Your task to perform on an android device: change the upload size in google photos Image 0: 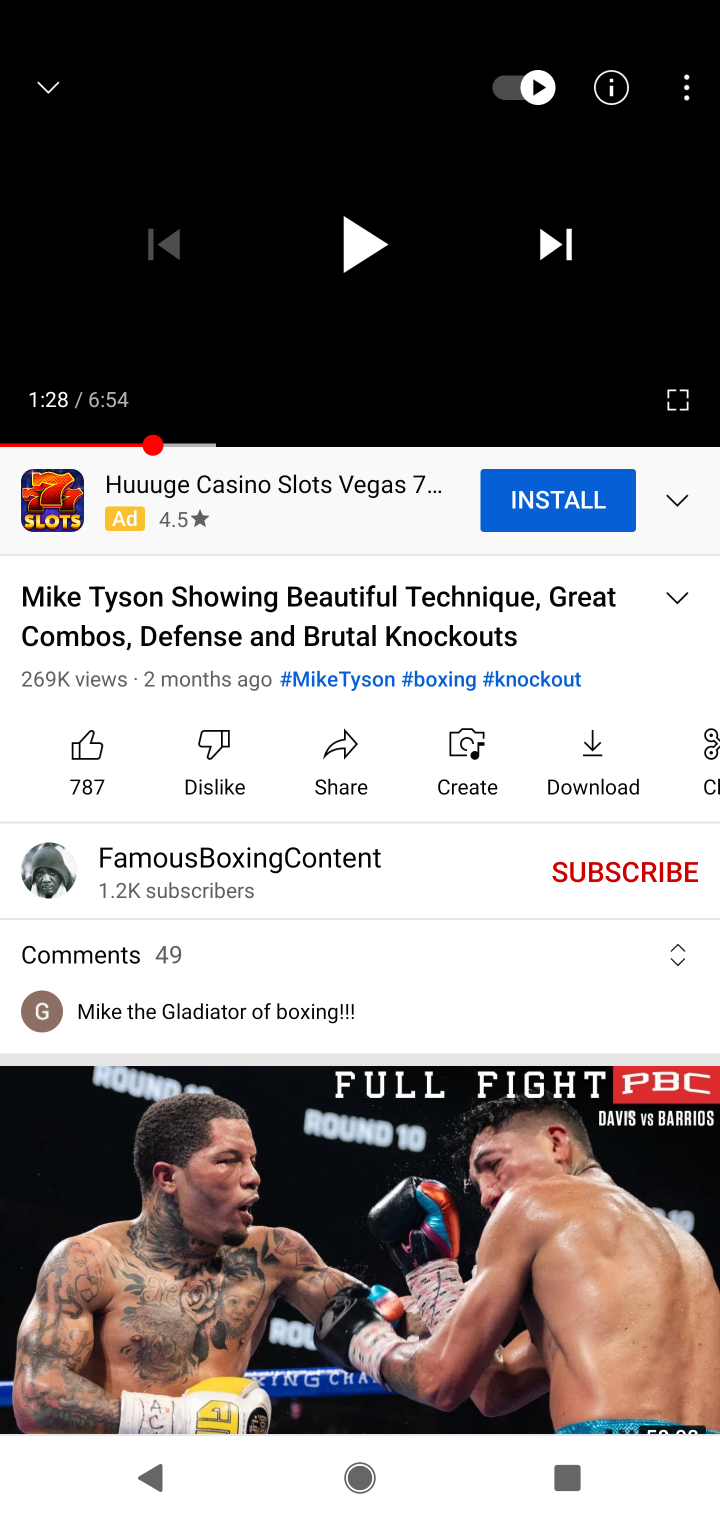
Step 0: press home button
Your task to perform on an android device: change the upload size in google photos Image 1: 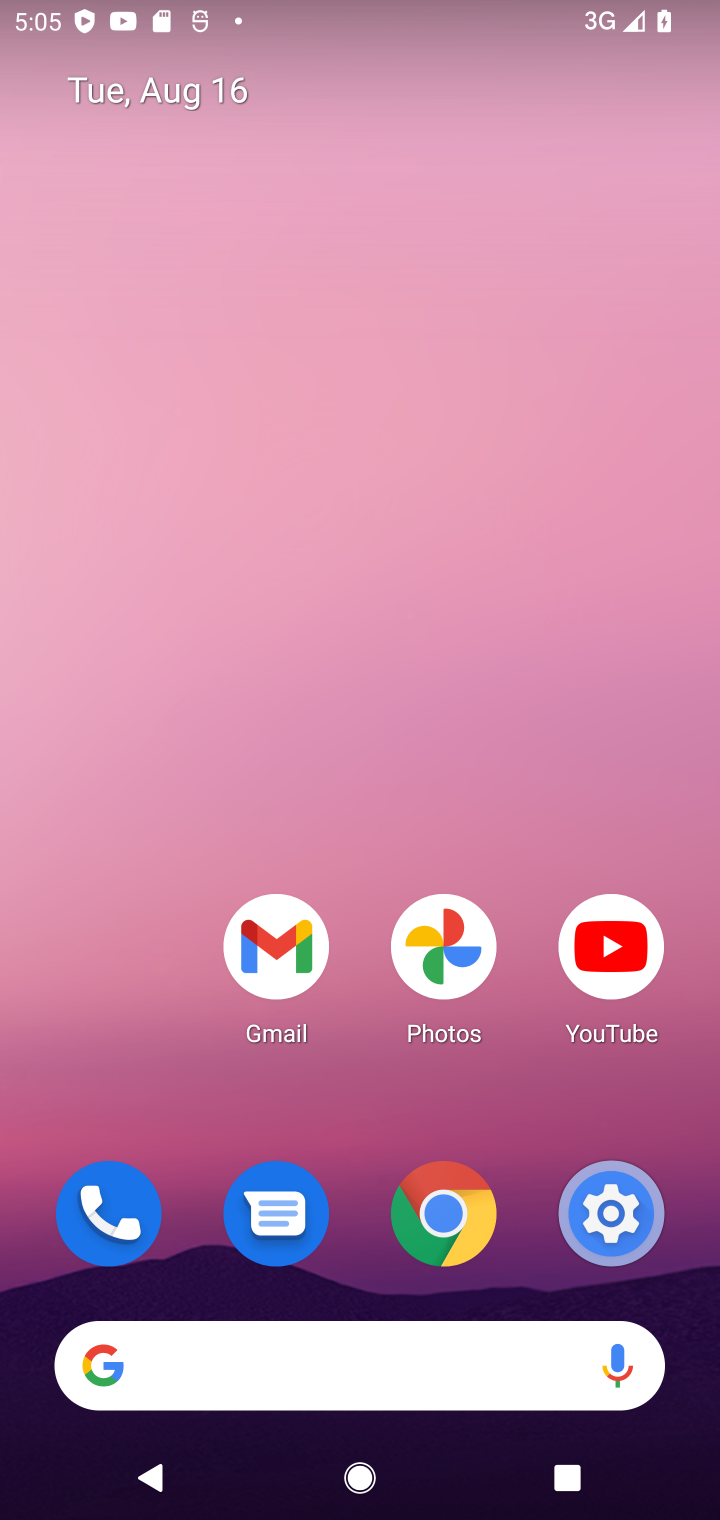
Step 1: drag from (360, 1105) to (495, 138)
Your task to perform on an android device: change the upload size in google photos Image 2: 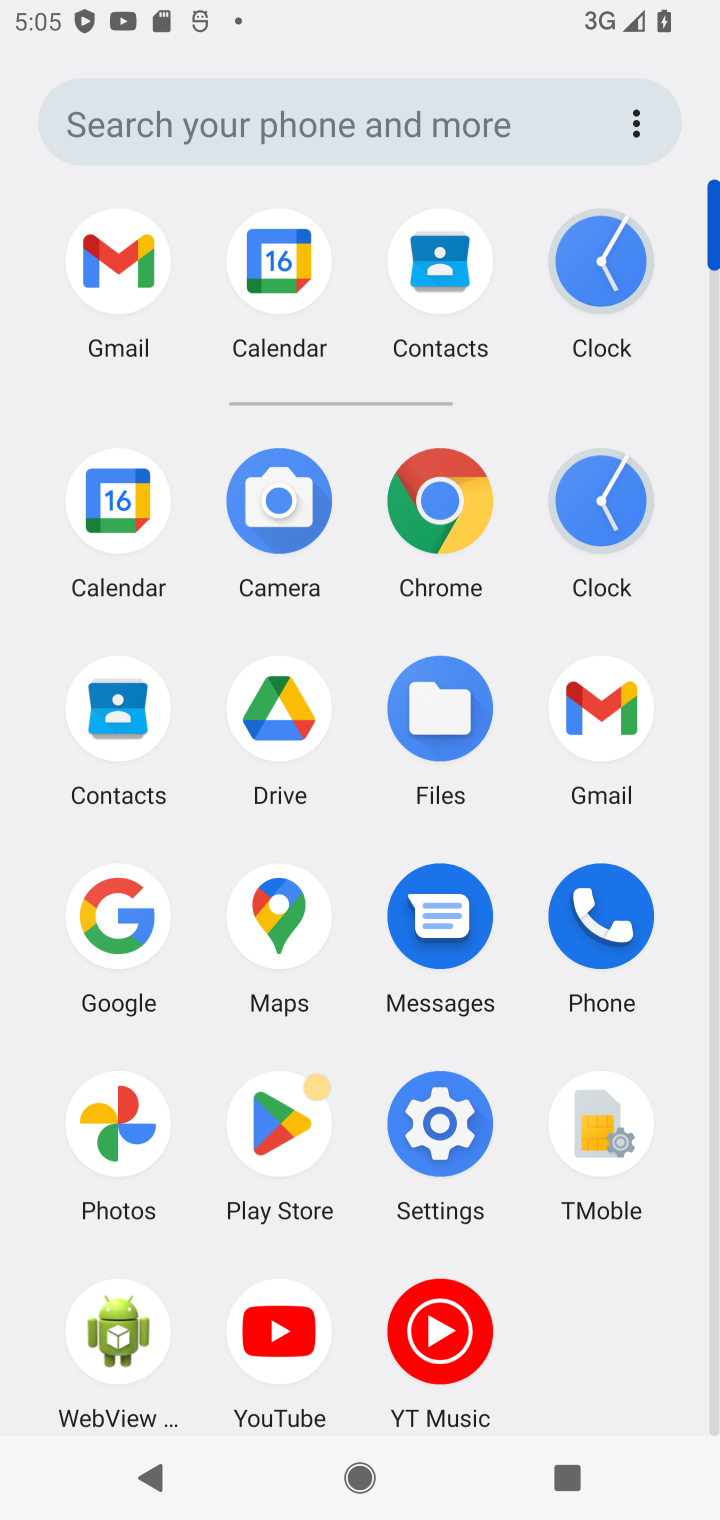
Step 2: click (105, 1119)
Your task to perform on an android device: change the upload size in google photos Image 3: 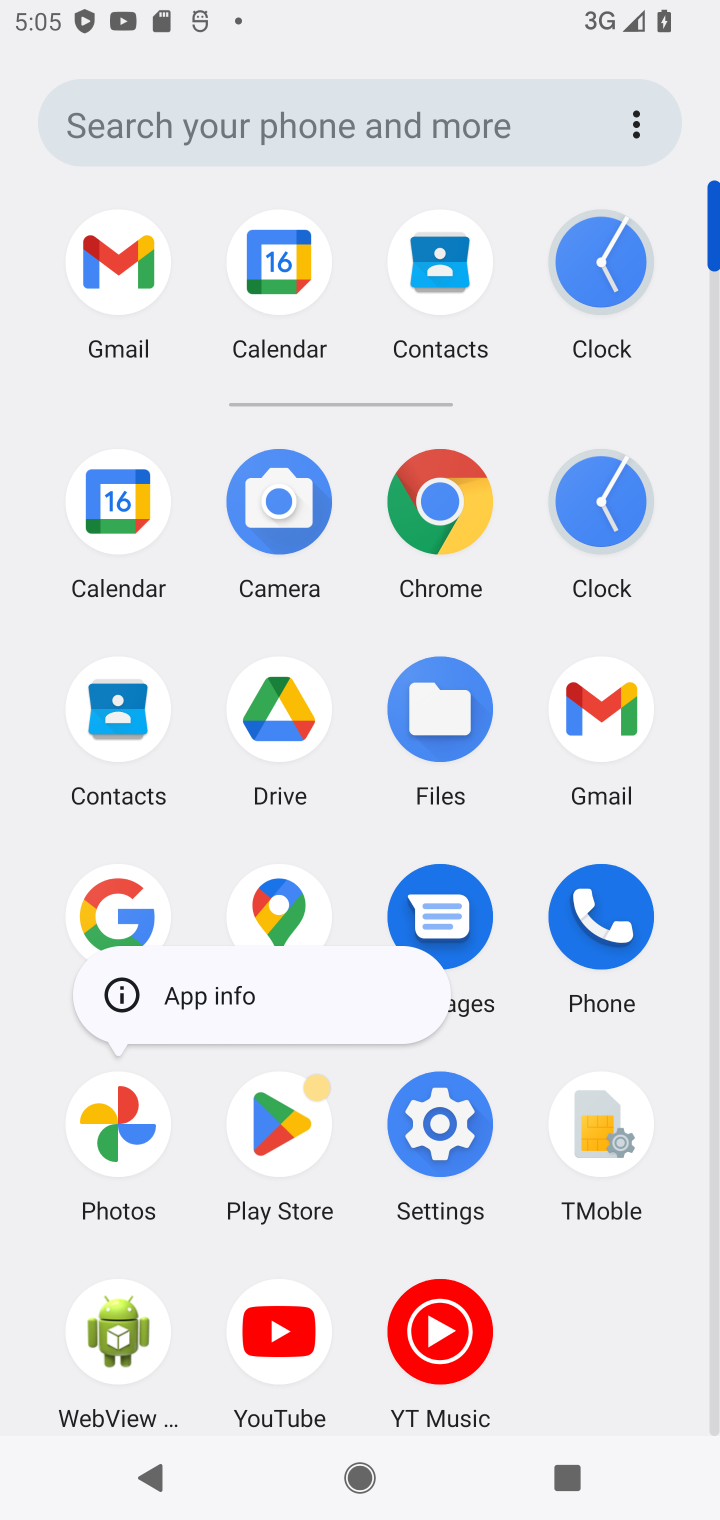
Step 3: click (102, 1120)
Your task to perform on an android device: change the upload size in google photos Image 4: 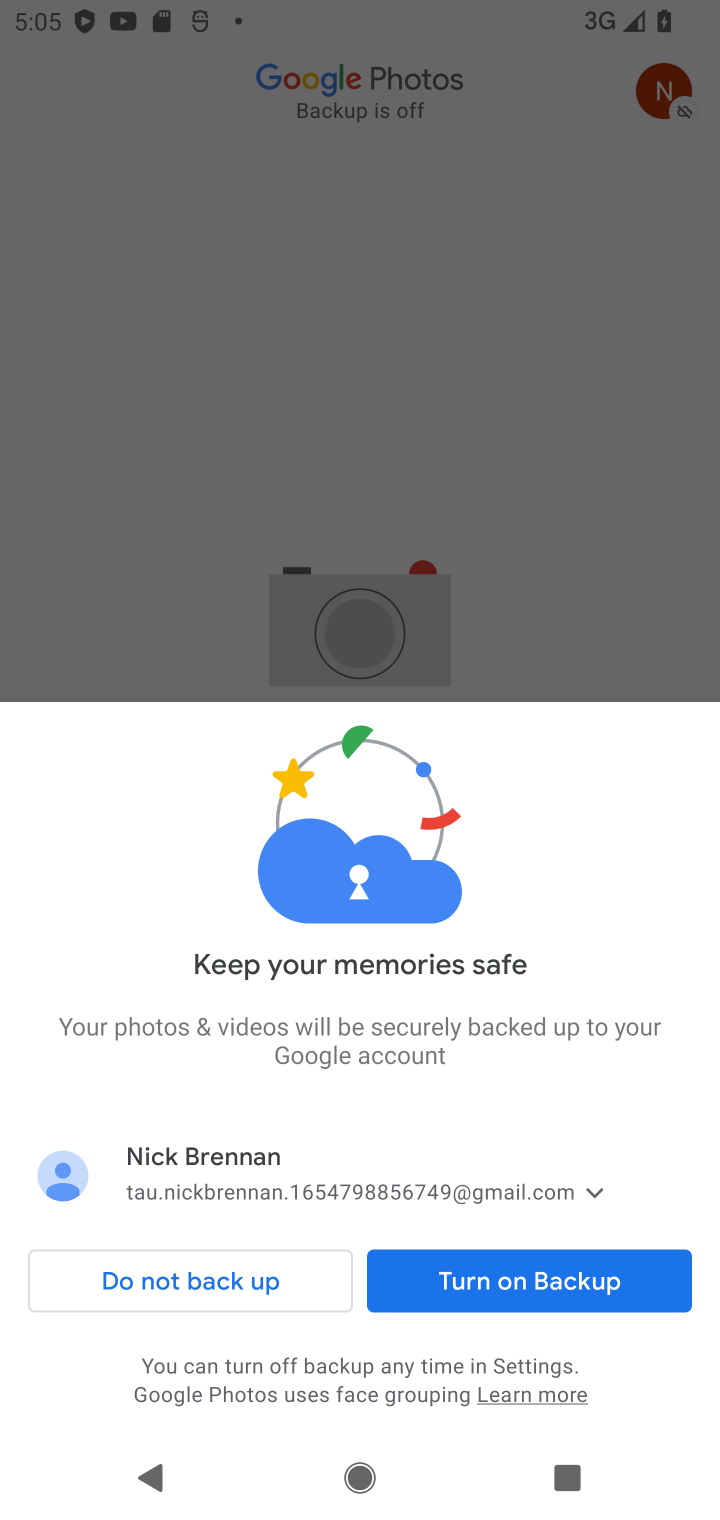
Step 4: click (535, 1285)
Your task to perform on an android device: change the upload size in google photos Image 5: 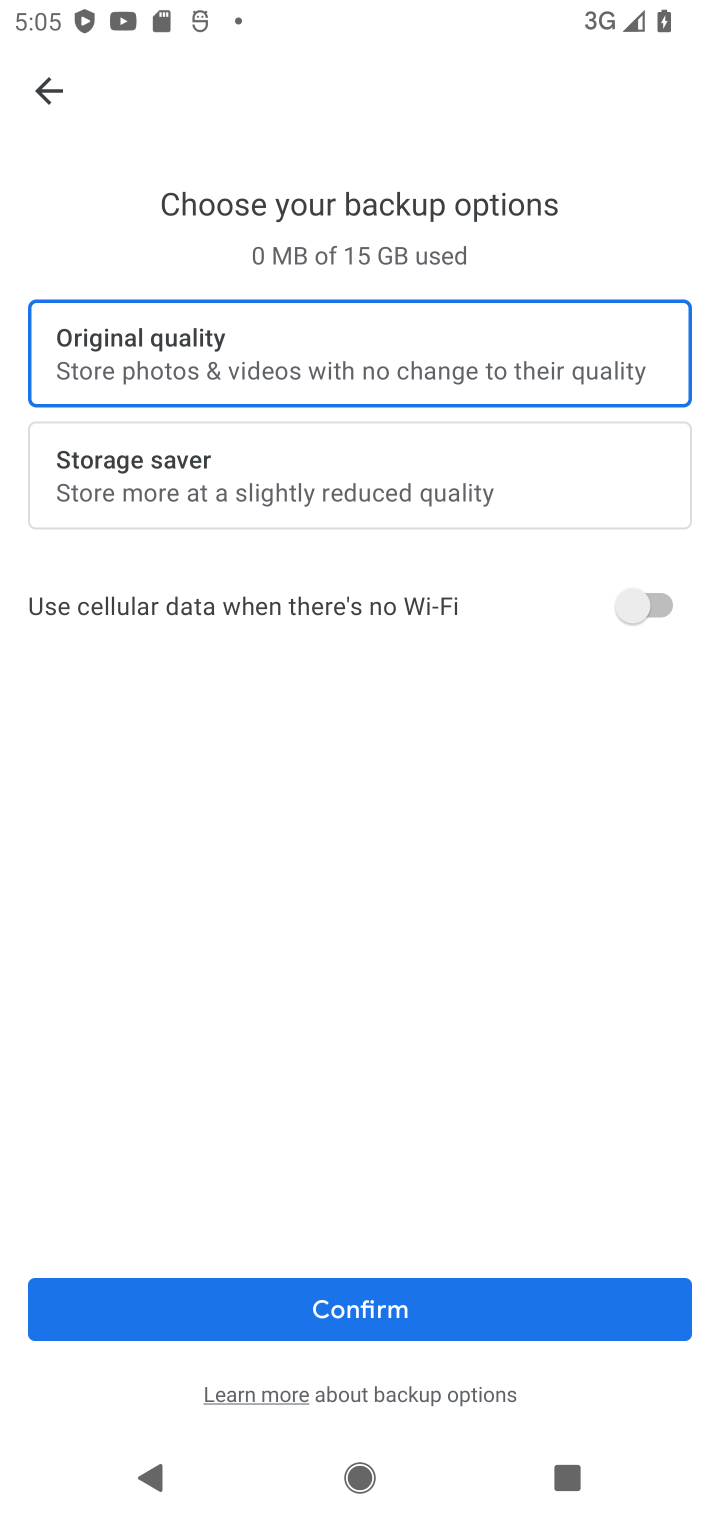
Step 5: click (399, 457)
Your task to perform on an android device: change the upload size in google photos Image 6: 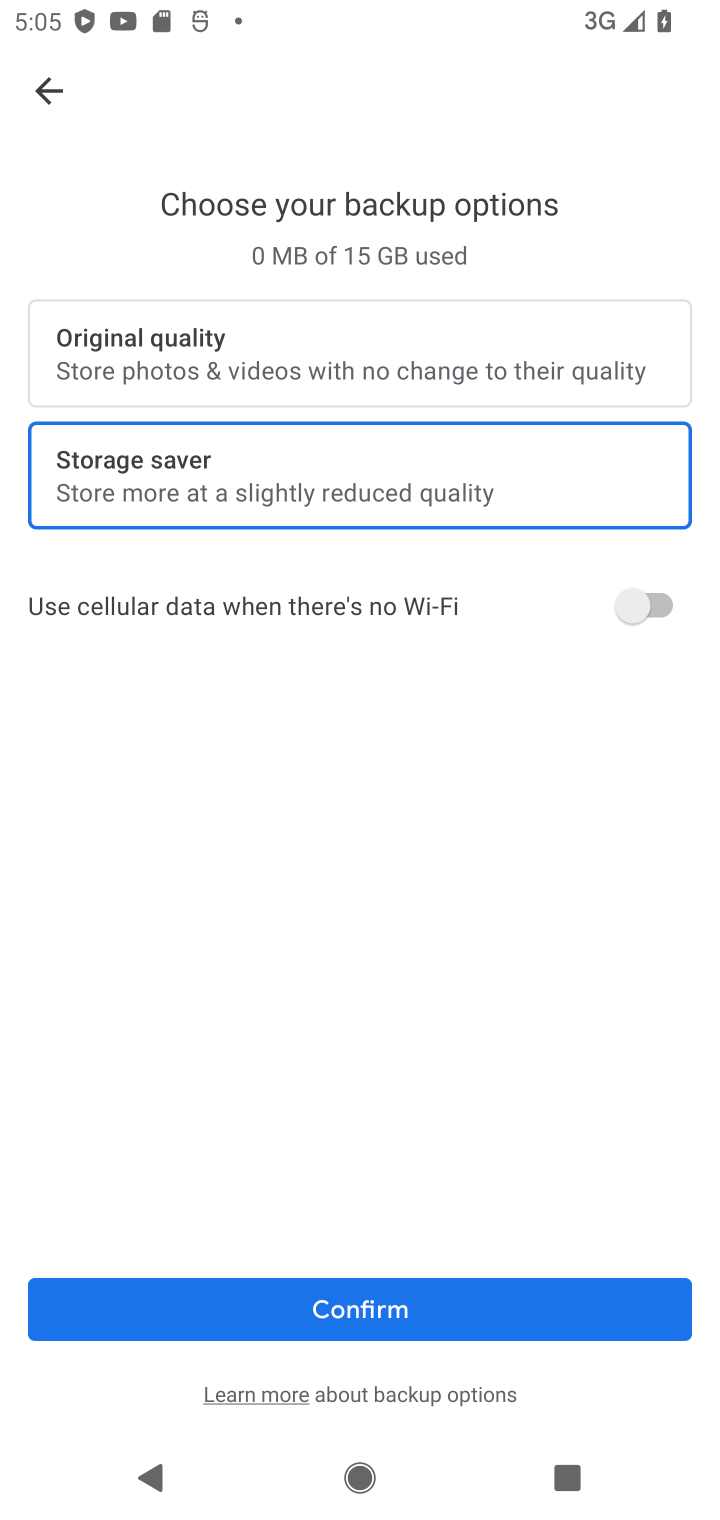
Step 6: click (531, 1302)
Your task to perform on an android device: change the upload size in google photos Image 7: 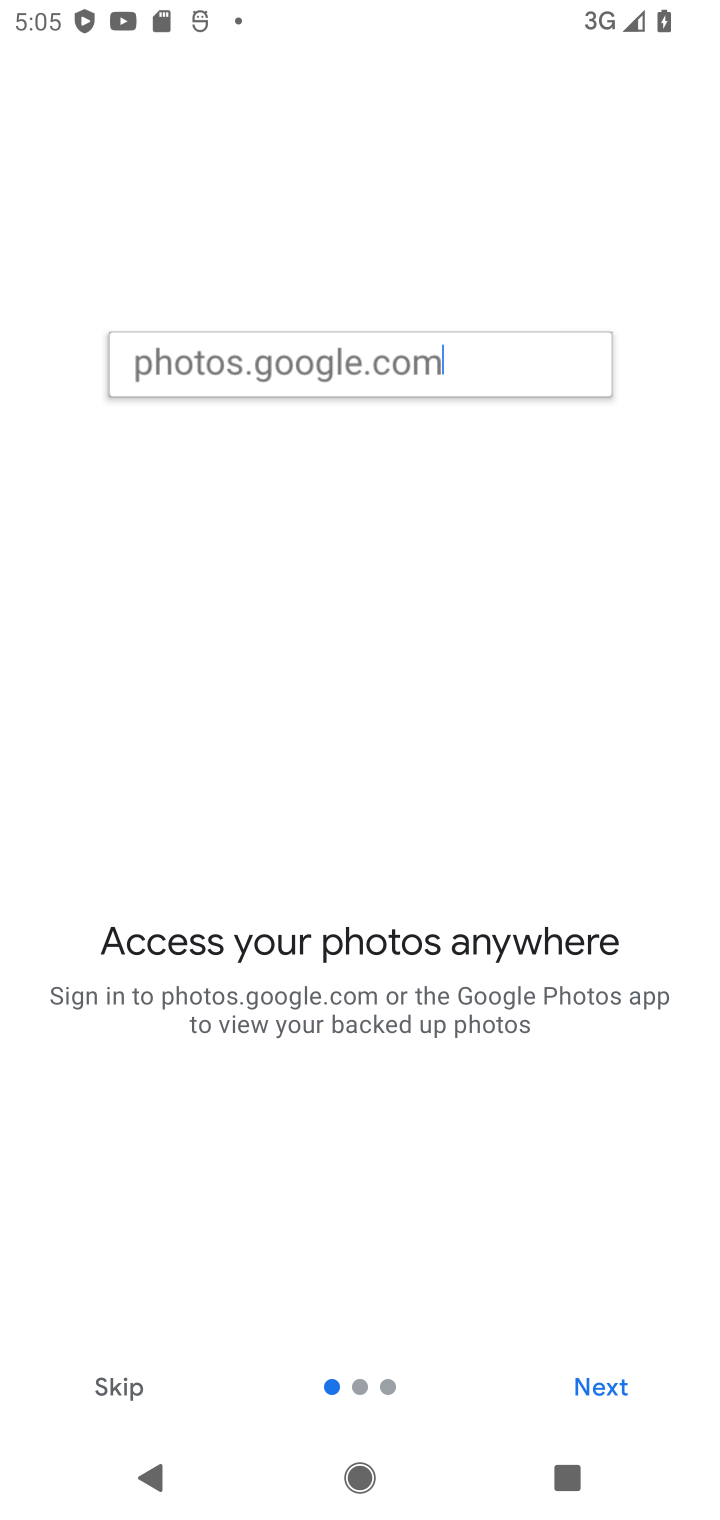
Step 7: click (569, 1380)
Your task to perform on an android device: change the upload size in google photos Image 8: 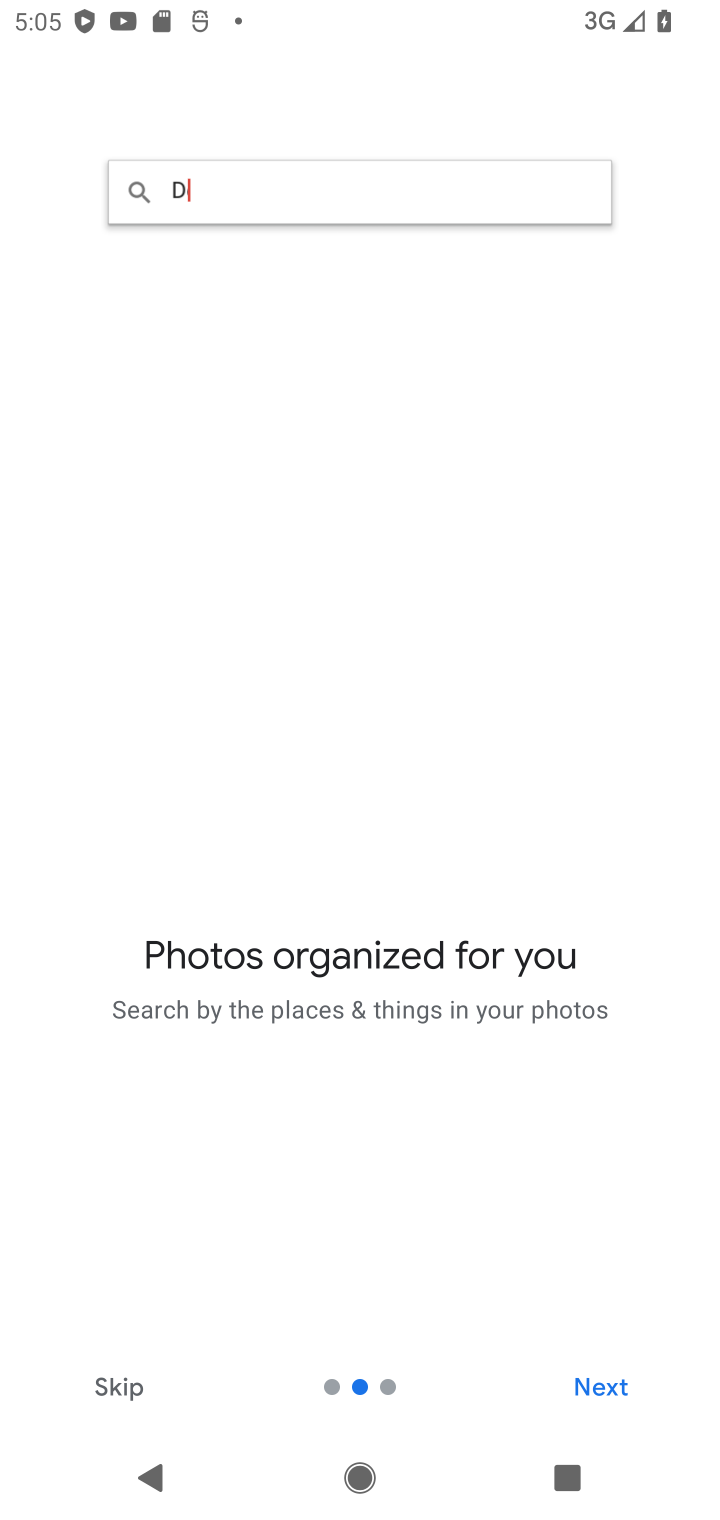
Step 8: click (571, 1380)
Your task to perform on an android device: change the upload size in google photos Image 9: 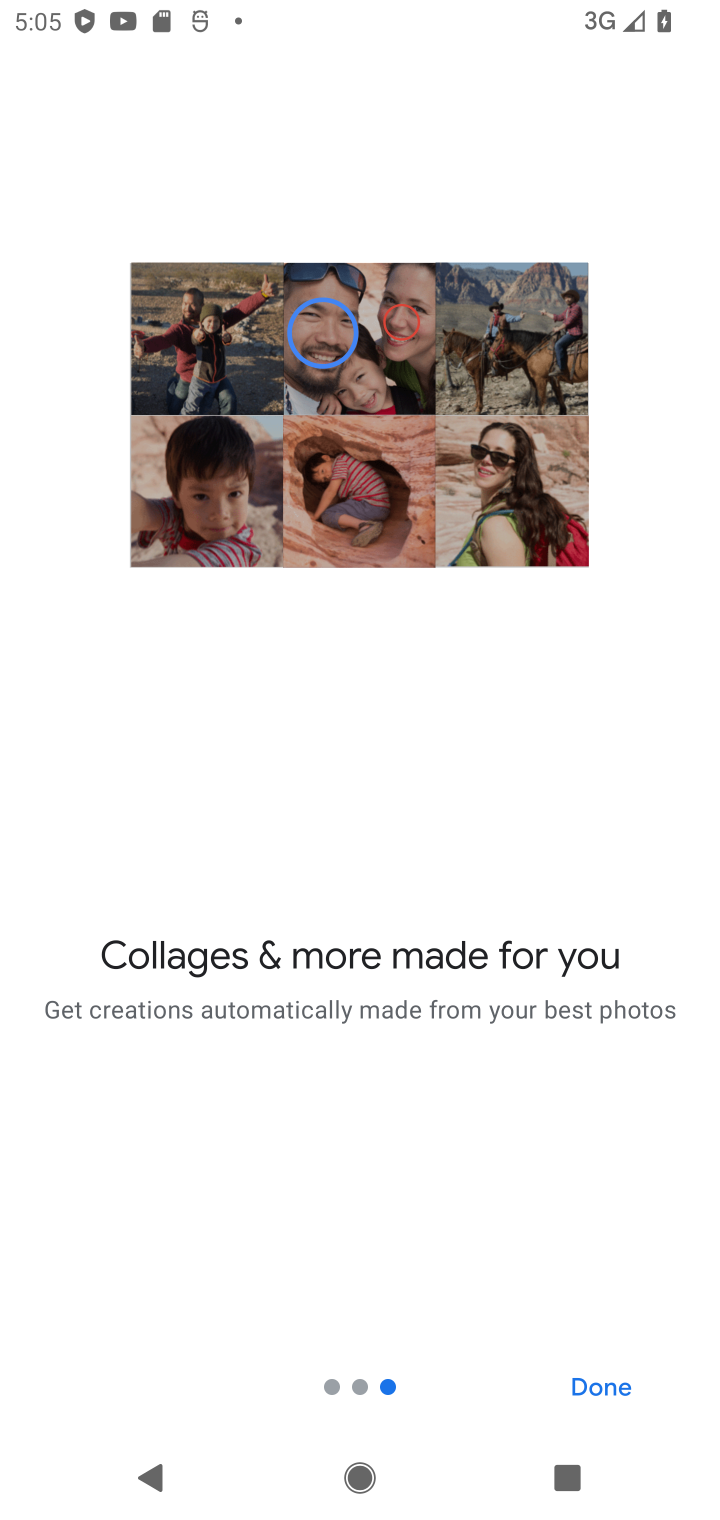
Step 9: click (571, 1380)
Your task to perform on an android device: change the upload size in google photos Image 10: 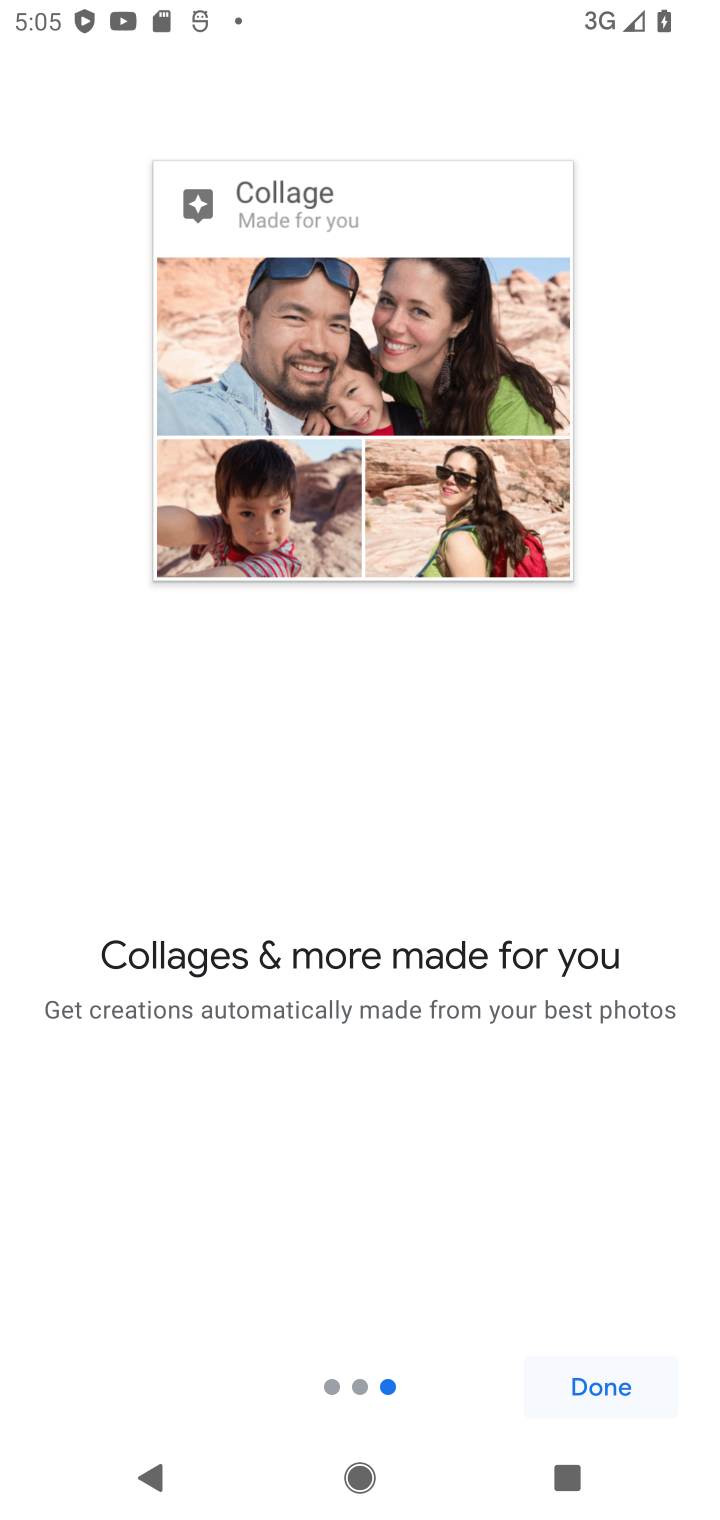
Step 10: task complete